Your task to perform on an android device: Is it going to rain today? Image 0: 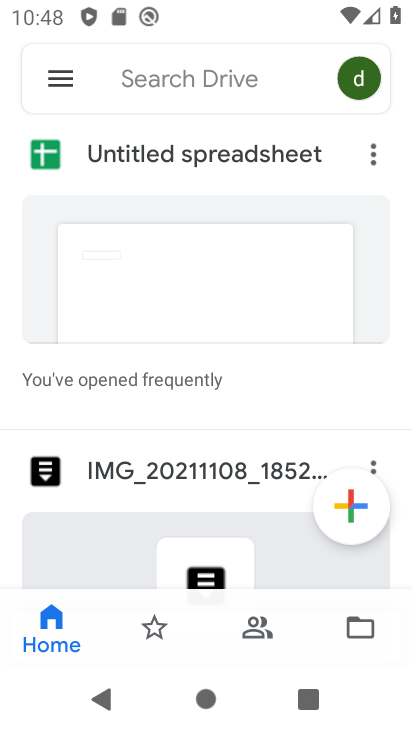
Step 0: press home button
Your task to perform on an android device: Is it going to rain today? Image 1: 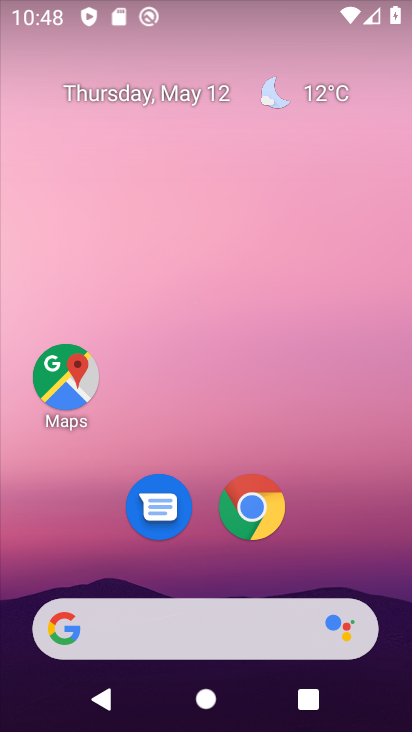
Step 1: click (213, 580)
Your task to perform on an android device: Is it going to rain today? Image 2: 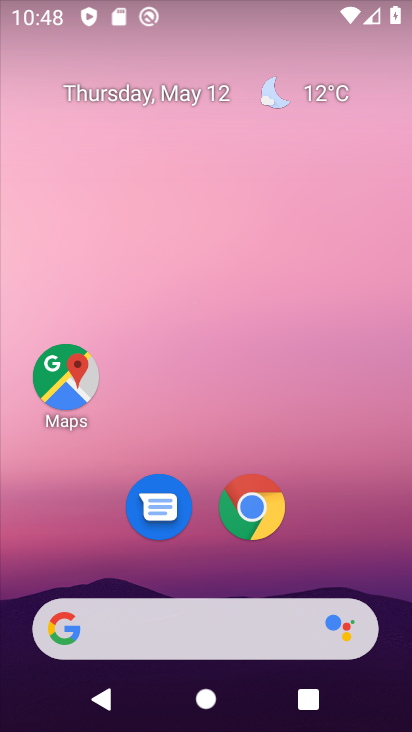
Step 2: click (316, 97)
Your task to perform on an android device: Is it going to rain today? Image 3: 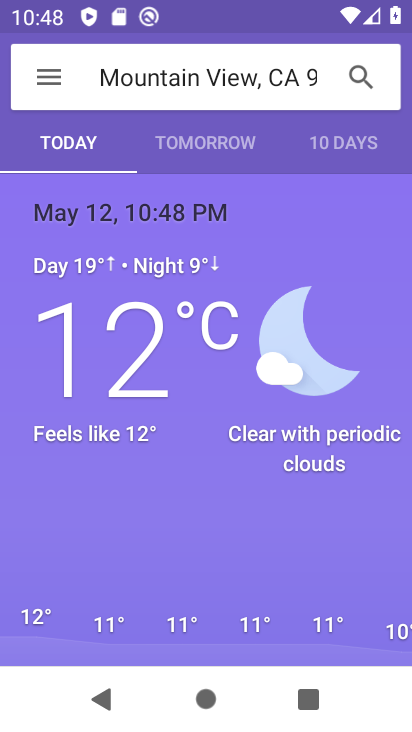
Step 3: task complete